Your task to perform on an android device: turn off data saver in the chrome app Image 0: 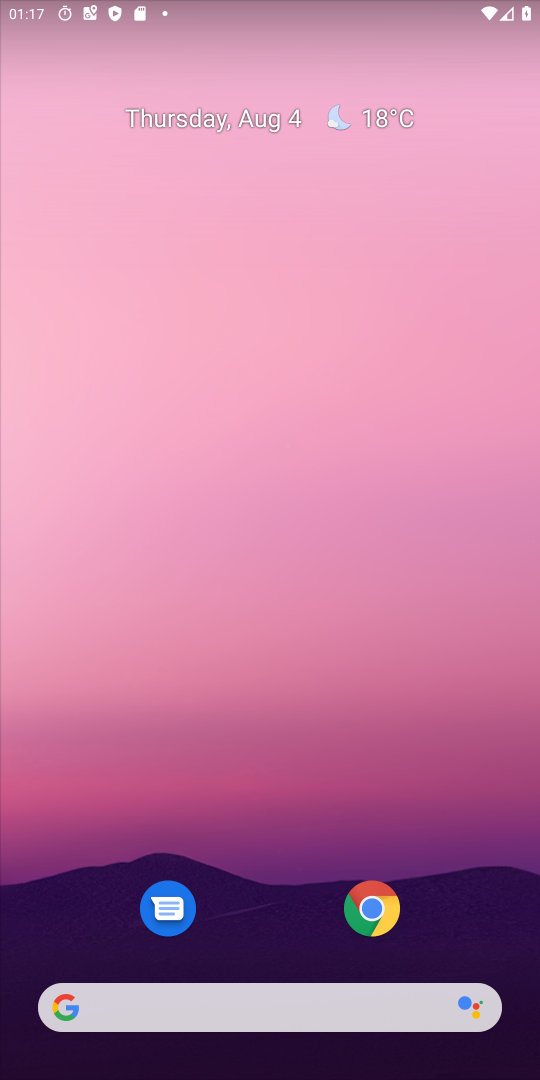
Step 0: drag from (367, 1014) to (256, 312)
Your task to perform on an android device: turn off data saver in the chrome app Image 1: 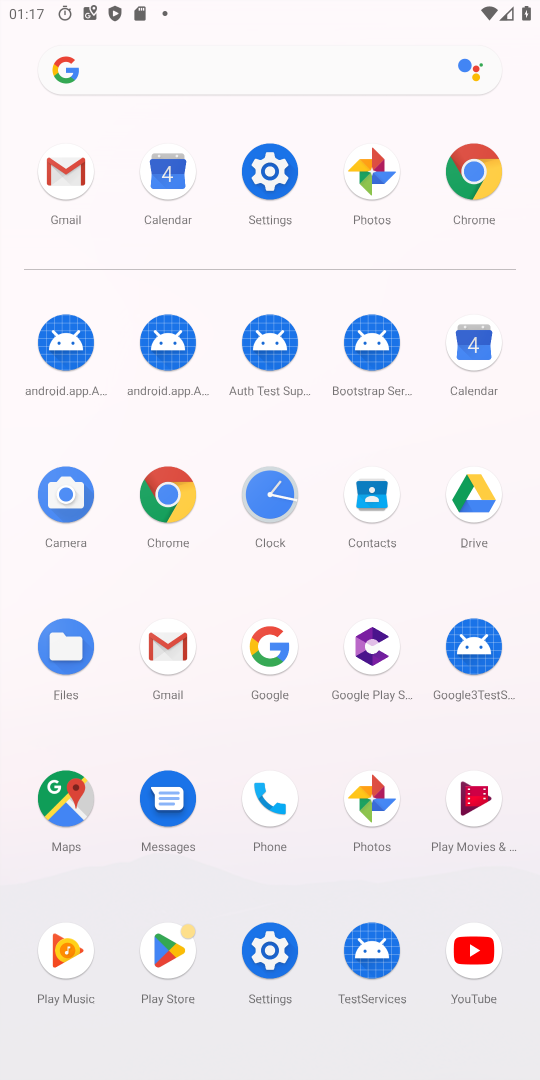
Step 1: click (161, 509)
Your task to perform on an android device: turn off data saver in the chrome app Image 2: 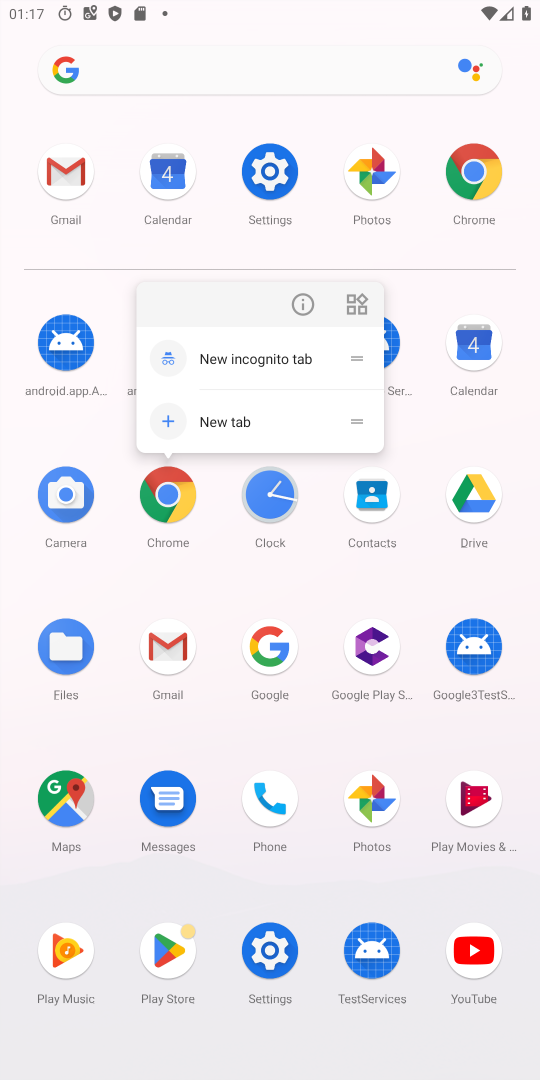
Step 2: click (151, 501)
Your task to perform on an android device: turn off data saver in the chrome app Image 3: 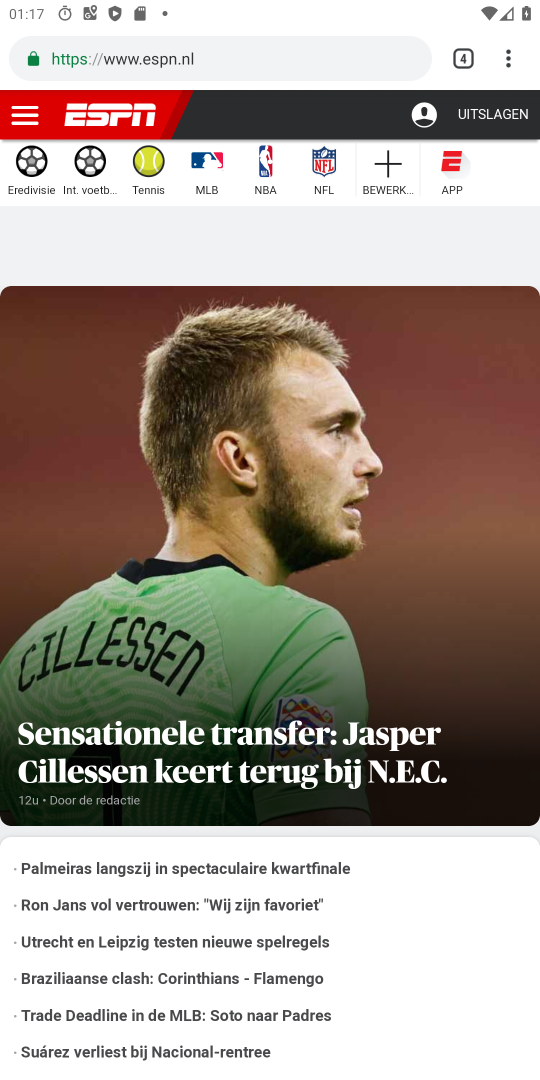
Step 3: click (512, 51)
Your task to perform on an android device: turn off data saver in the chrome app Image 4: 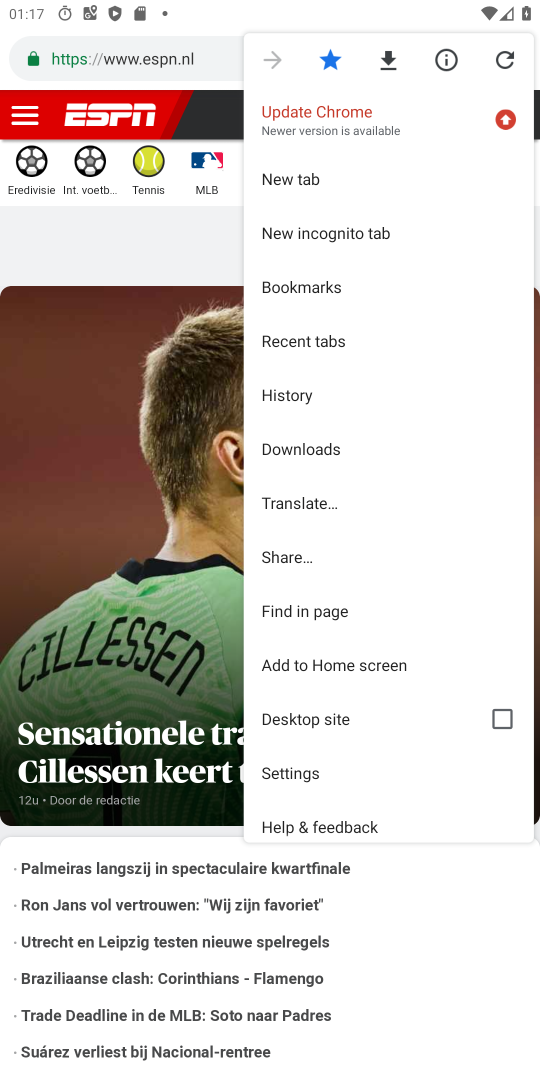
Step 4: click (270, 772)
Your task to perform on an android device: turn off data saver in the chrome app Image 5: 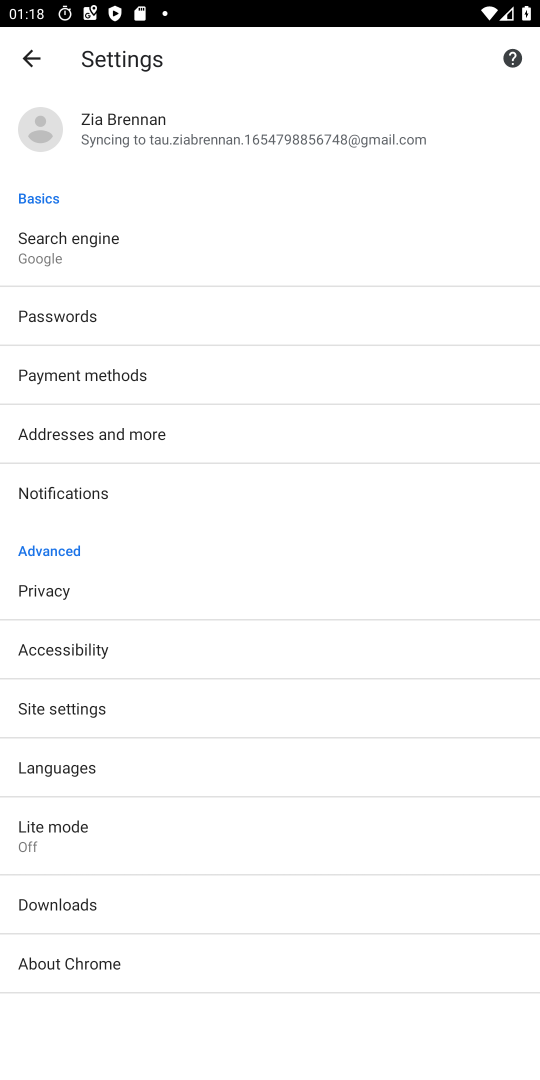
Step 5: click (63, 828)
Your task to perform on an android device: turn off data saver in the chrome app Image 6: 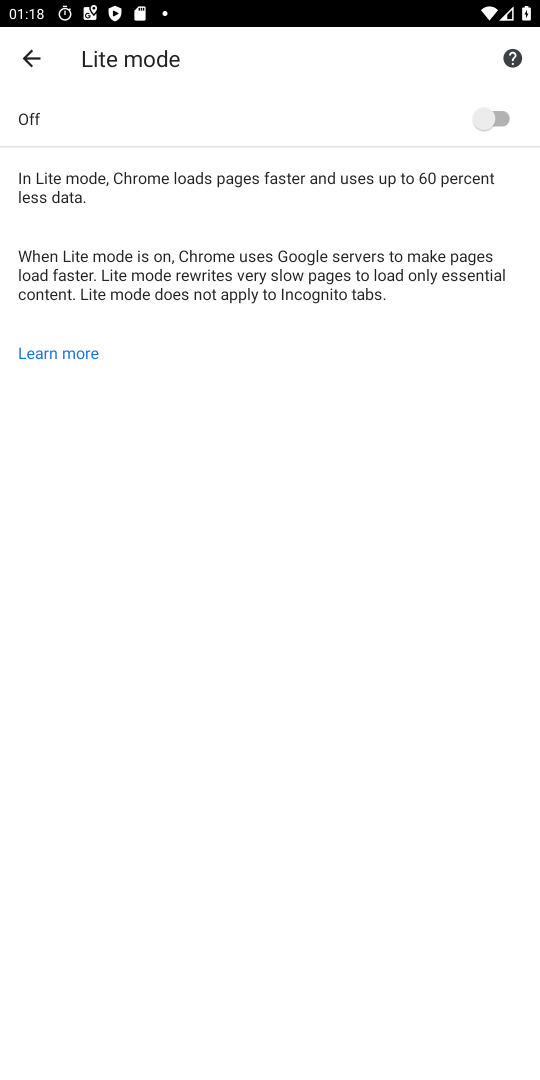
Step 6: click (487, 120)
Your task to perform on an android device: turn off data saver in the chrome app Image 7: 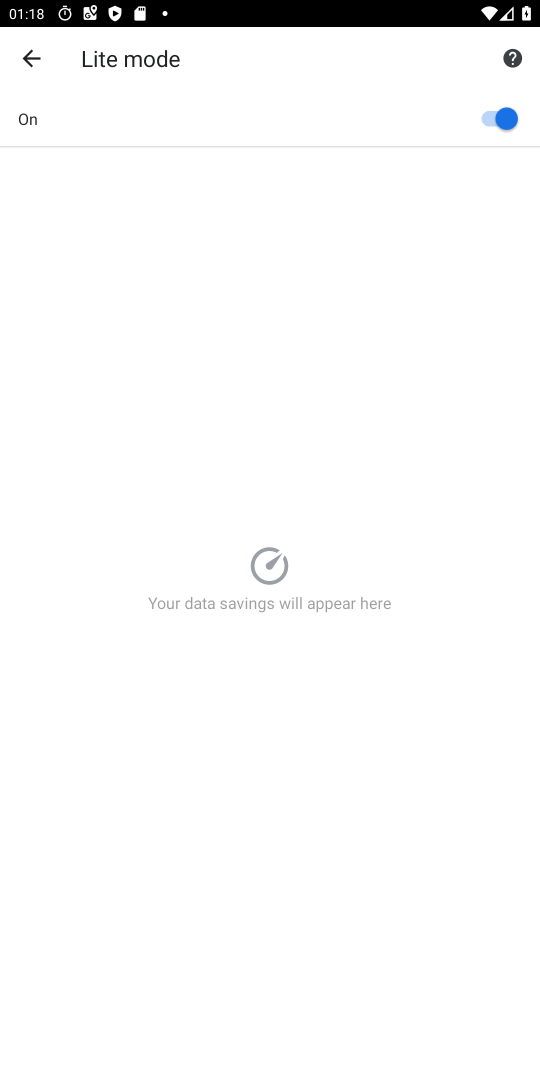
Step 7: click (487, 120)
Your task to perform on an android device: turn off data saver in the chrome app Image 8: 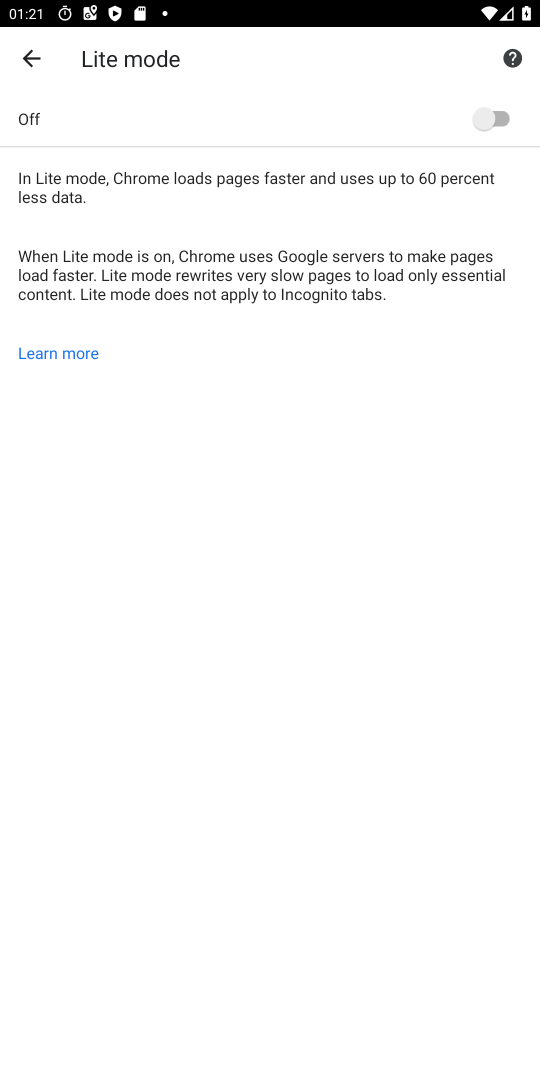
Step 8: task complete